Your task to perform on an android device: Go to Maps Image 0: 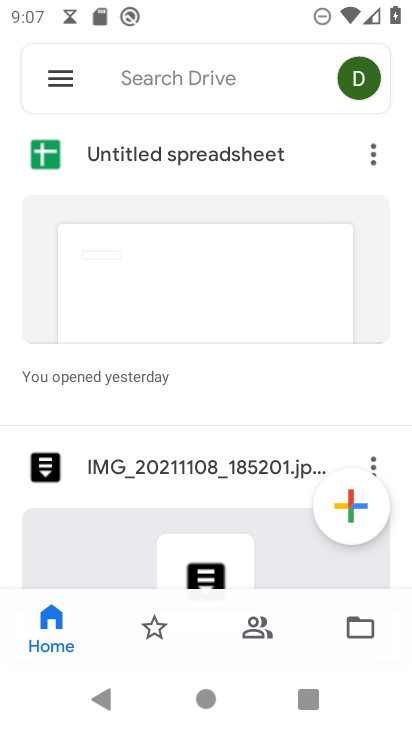
Step 0: press home button
Your task to perform on an android device: Go to Maps Image 1: 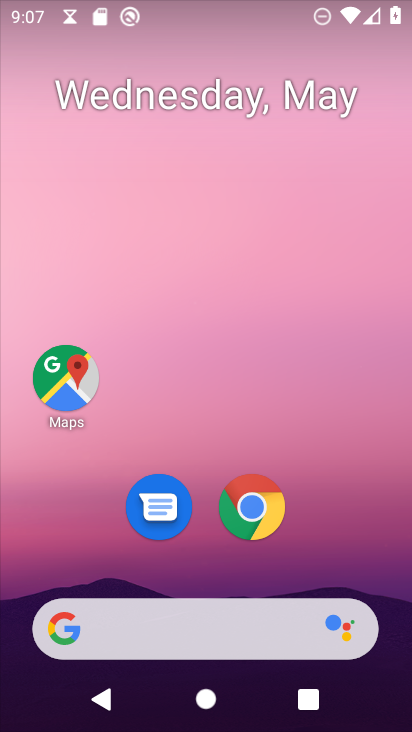
Step 1: click (90, 394)
Your task to perform on an android device: Go to Maps Image 2: 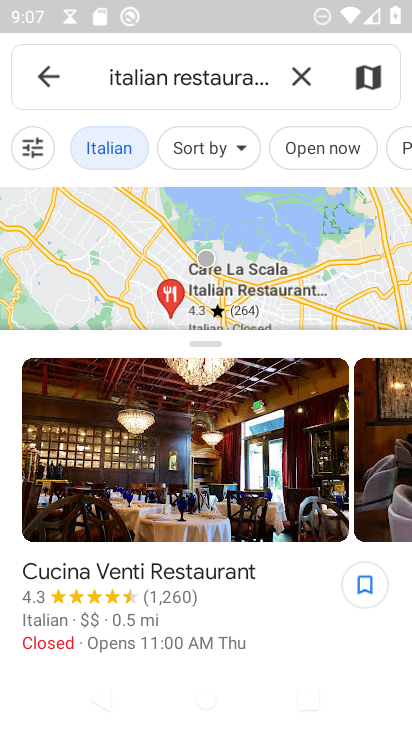
Step 2: task complete